Your task to perform on an android device: stop showing notifications on the lock screen Image 0: 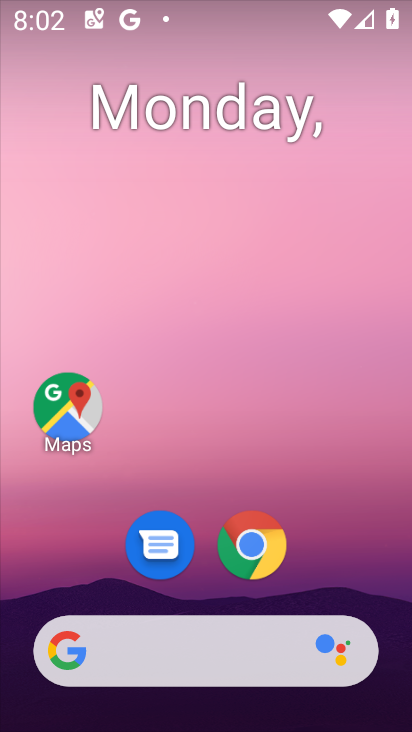
Step 0: drag from (196, 637) to (346, 204)
Your task to perform on an android device: stop showing notifications on the lock screen Image 1: 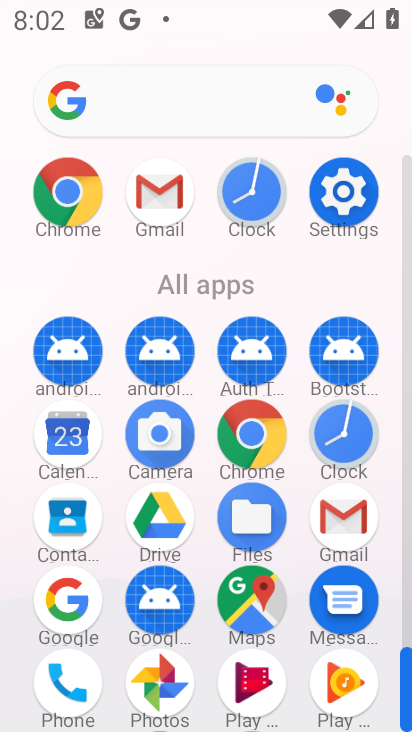
Step 1: click (350, 191)
Your task to perform on an android device: stop showing notifications on the lock screen Image 2: 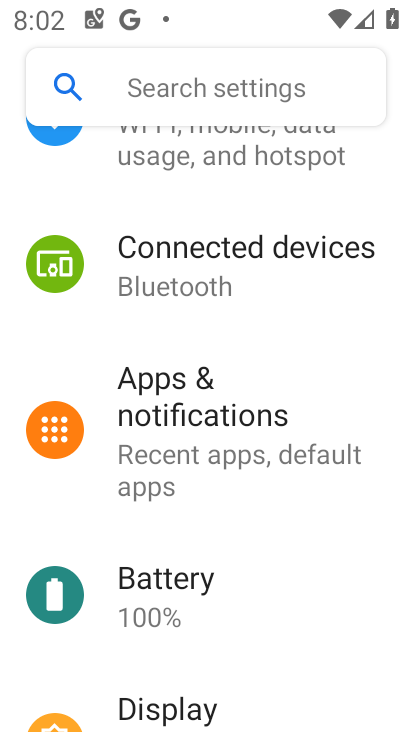
Step 2: click (226, 413)
Your task to perform on an android device: stop showing notifications on the lock screen Image 3: 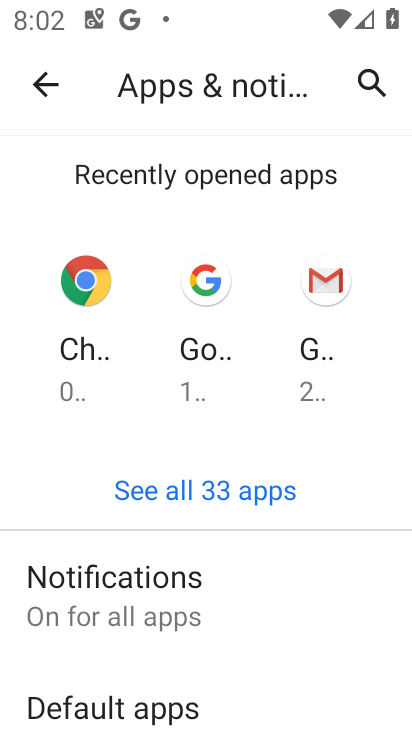
Step 3: click (132, 582)
Your task to perform on an android device: stop showing notifications on the lock screen Image 4: 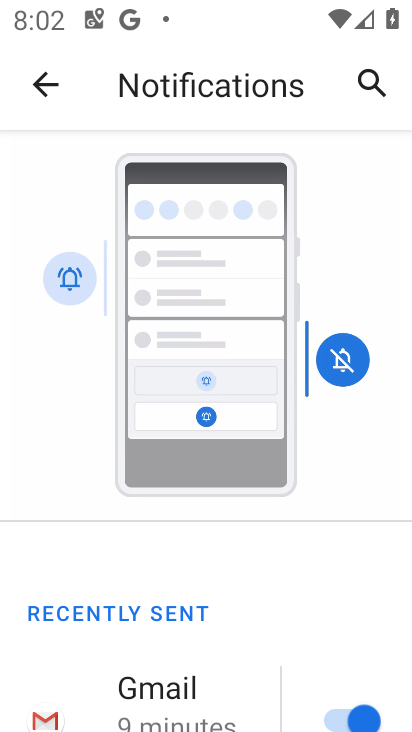
Step 4: drag from (163, 580) to (285, 283)
Your task to perform on an android device: stop showing notifications on the lock screen Image 5: 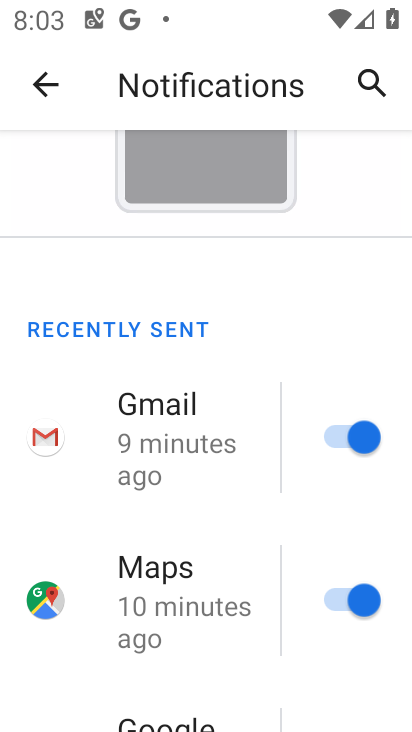
Step 5: drag from (246, 522) to (299, 330)
Your task to perform on an android device: stop showing notifications on the lock screen Image 6: 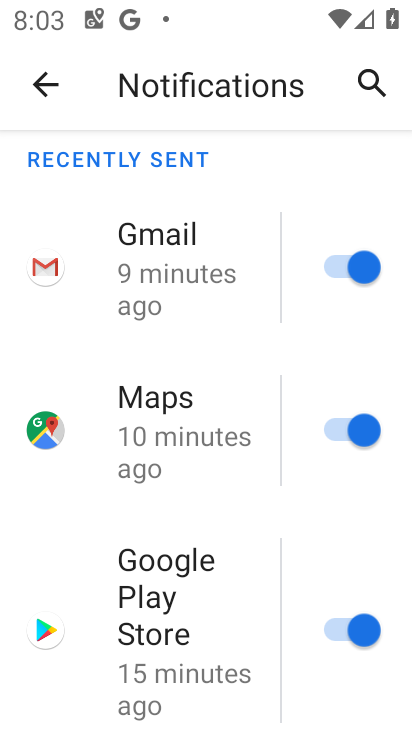
Step 6: drag from (212, 685) to (309, 190)
Your task to perform on an android device: stop showing notifications on the lock screen Image 7: 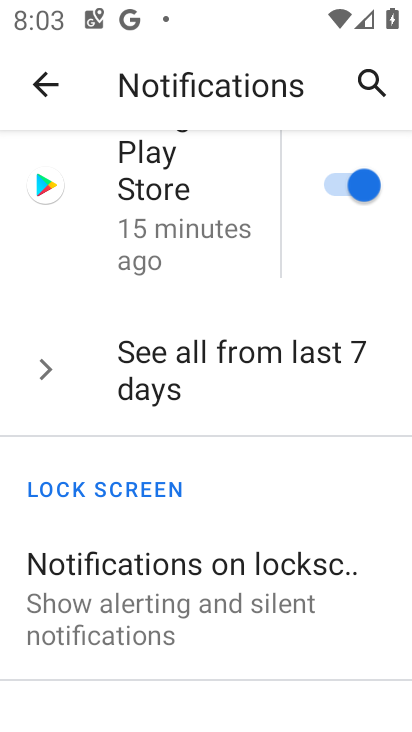
Step 7: click (137, 581)
Your task to perform on an android device: stop showing notifications on the lock screen Image 8: 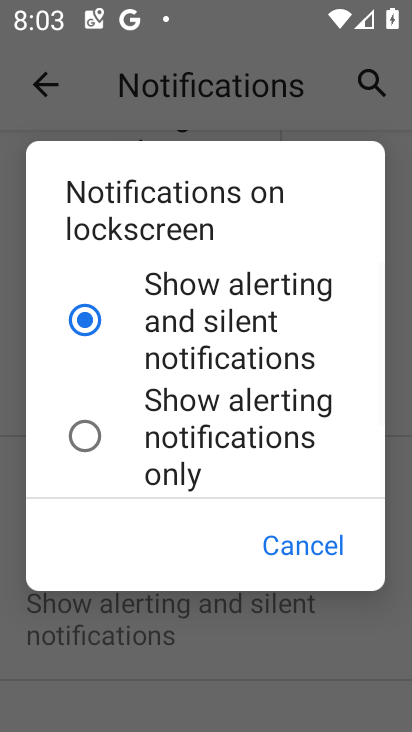
Step 8: drag from (108, 452) to (232, 142)
Your task to perform on an android device: stop showing notifications on the lock screen Image 9: 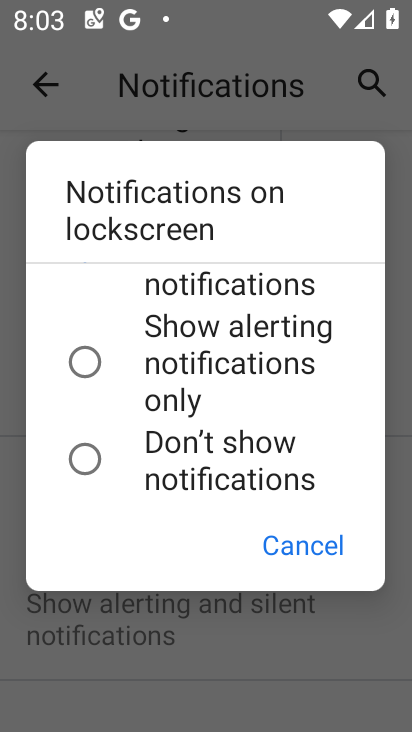
Step 9: click (84, 474)
Your task to perform on an android device: stop showing notifications on the lock screen Image 10: 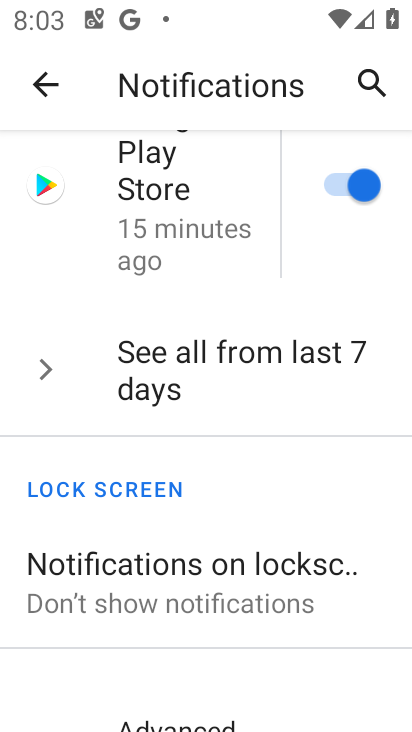
Step 10: task complete